Your task to perform on an android device: Show me popular videos on Youtube Image 0: 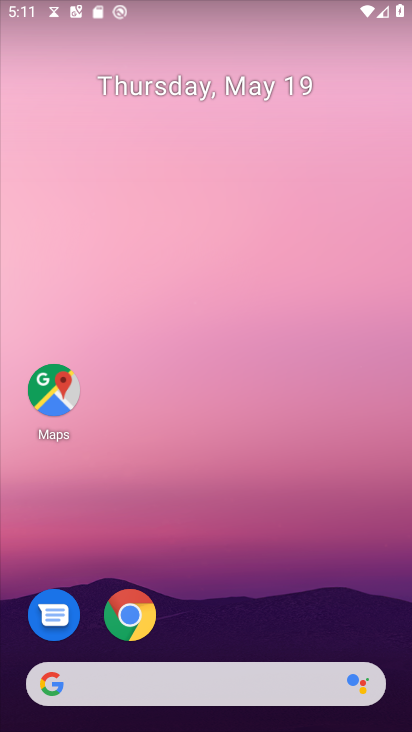
Step 0: drag from (111, 673) to (183, 27)
Your task to perform on an android device: Show me popular videos on Youtube Image 1: 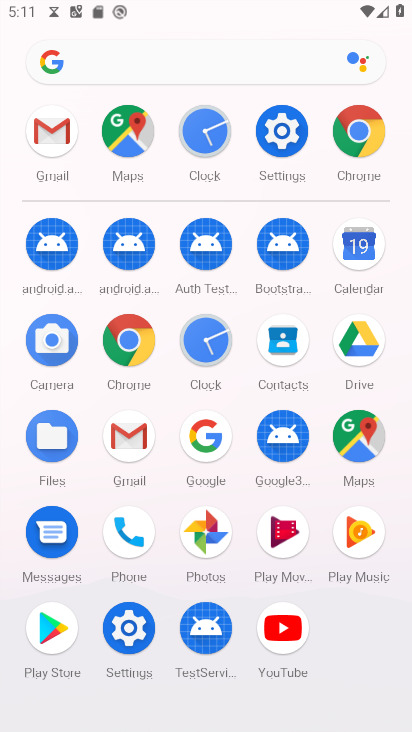
Step 1: click (277, 612)
Your task to perform on an android device: Show me popular videos on Youtube Image 2: 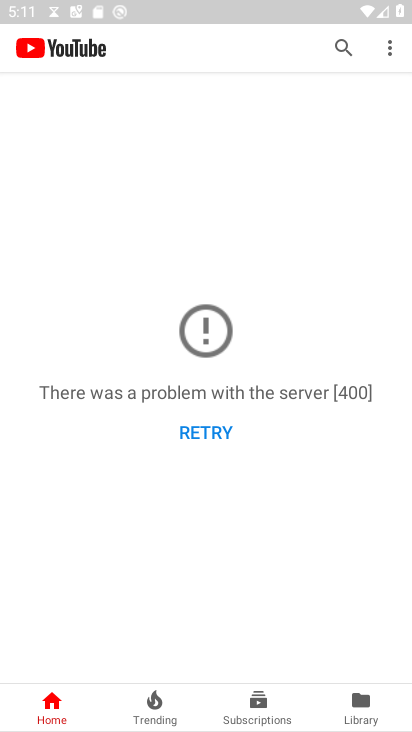
Step 2: click (195, 422)
Your task to perform on an android device: Show me popular videos on Youtube Image 3: 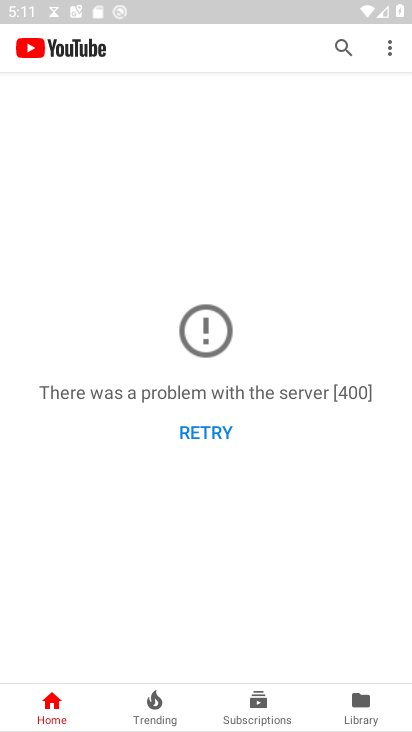
Step 3: click (226, 431)
Your task to perform on an android device: Show me popular videos on Youtube Image 4: 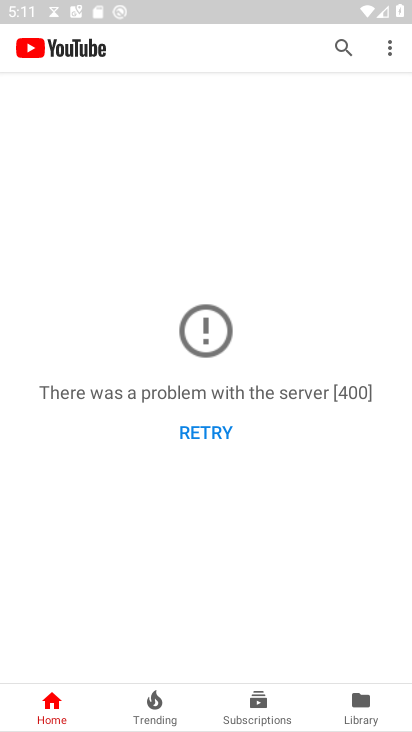
Step 4: task complete